Your task to perform on an android device: turn vacation reply on in the gmail app Image 0: 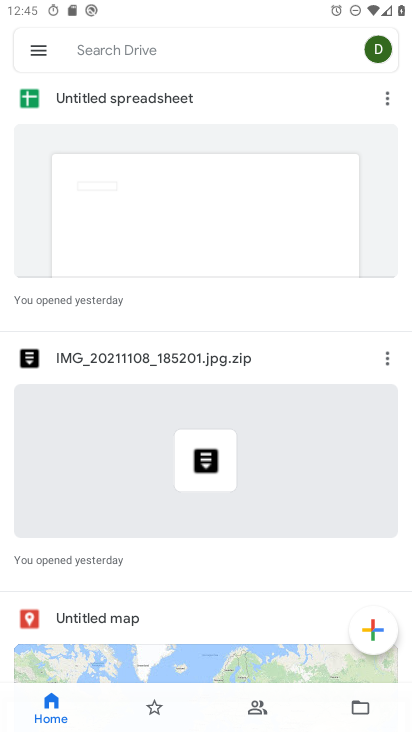
Step 0: press home button
Your task to perform on an android device: turn vacation reply on in the gmail app Image 1: 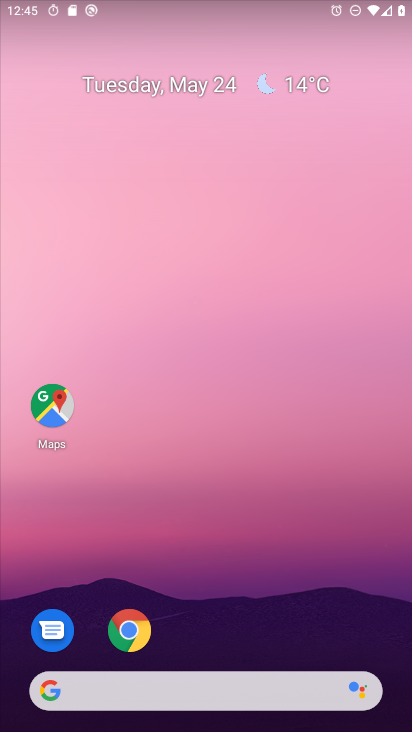
Step 1: drag from (339, 593) to (348, 154)
Your task to perform on an android device: turn vacation reply on in the gmail app Image 2: 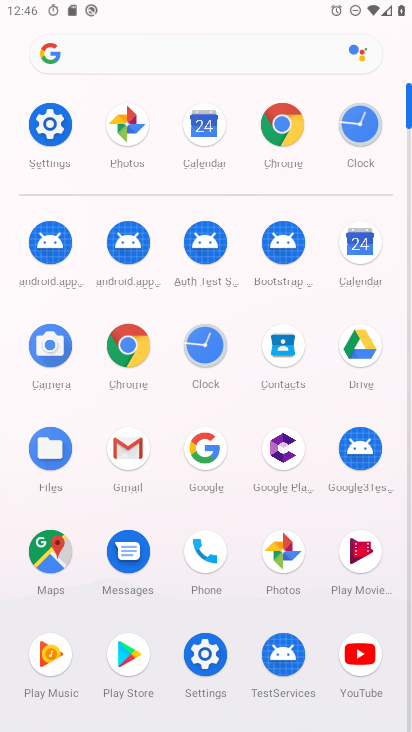
Step 2: click (139, 458)
Your task to perform on an android device: turn vacation reply on in the gmail app Image 3: 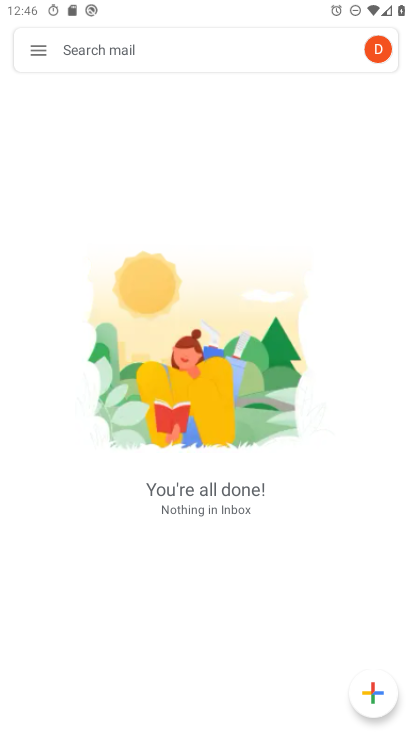
Step 3: click (29, 50)
Your task to perform on an android device: turn vacation reply on in the gmail app Image 4: 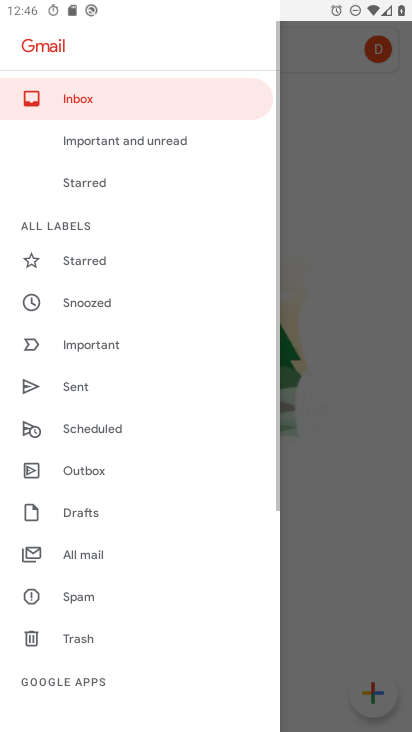
Step 4: drag from (98, 607) to (123, 306)
Your task to perform on an android device: turn vacation reply on in the gmail app Image 5: 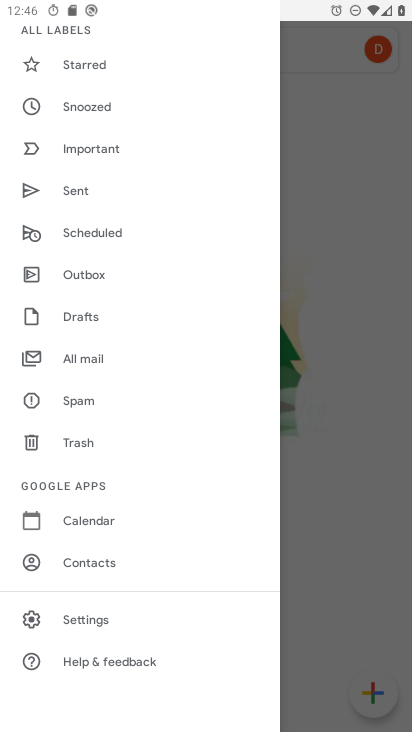
Step 5: click (109, 618)
Your task to perform on an android device: turn vacation reply on in the gmail app Image 6: 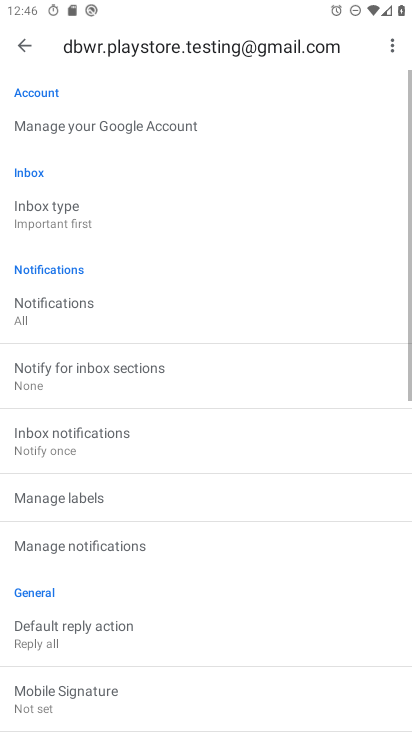
Step 6: drag from (242, 611) to (243, 258)
Your task to perform on an android device: turn vacation reply on in the gmail app Image 7: 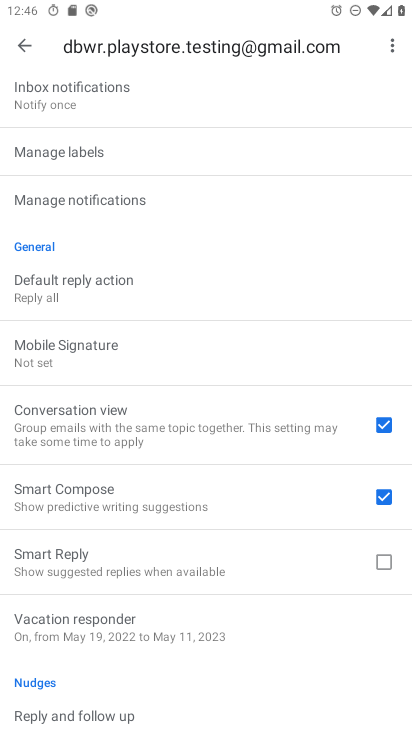
Step 7: click (186, 641)
Your task to perform on an android device: turn vacation reply on in the gmail app Image 8: 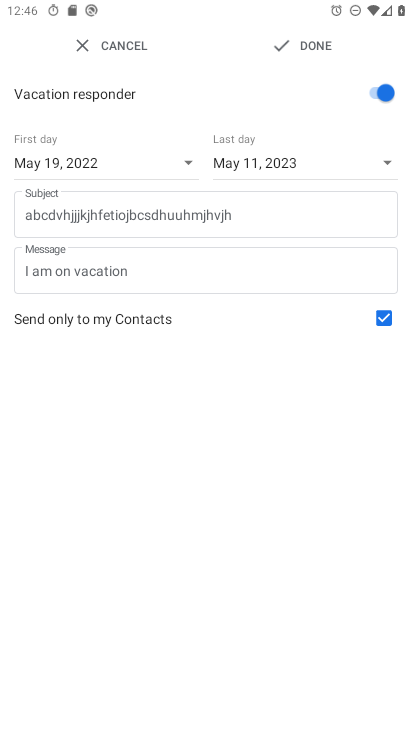
Step 8: task complete